Your task to perform on an android device: Go to network settings Image 0: 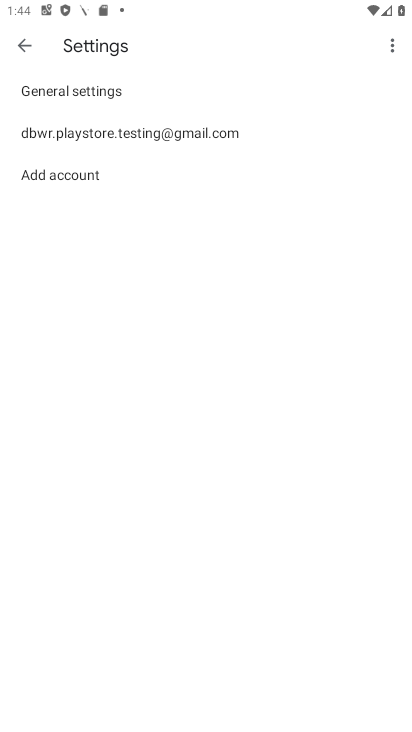
Step 0: press home button
Your task to perform on an android device: Go to network settings Image 1: 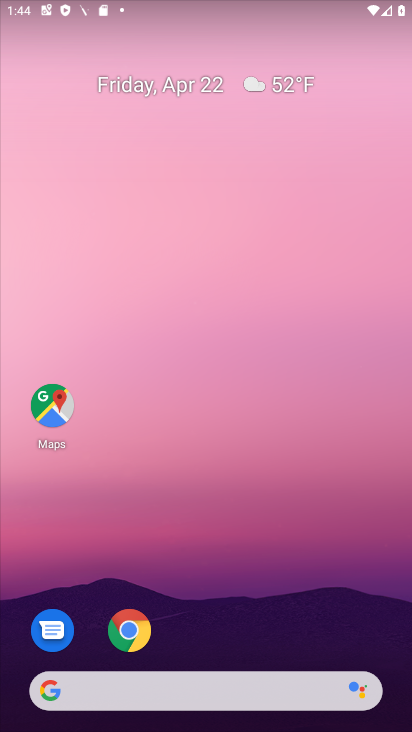
Step 1: click (290, 199)
Your task to perform on an android device: Go to network settings Image 2: 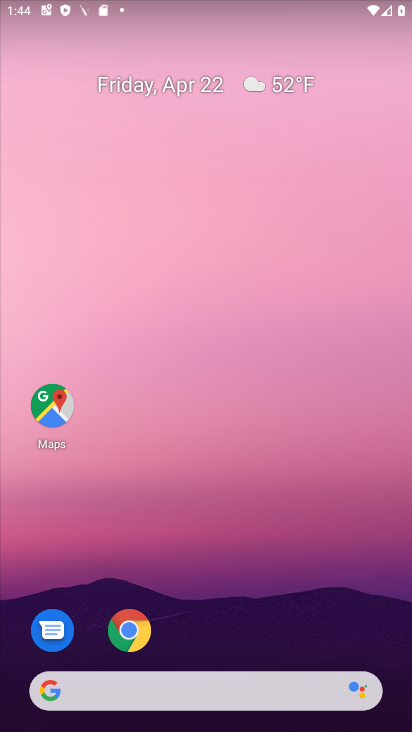
Step 2: drag from (376, 526) to (361, 93)
Your task to perform on an android device: Go to network settings Image 3: 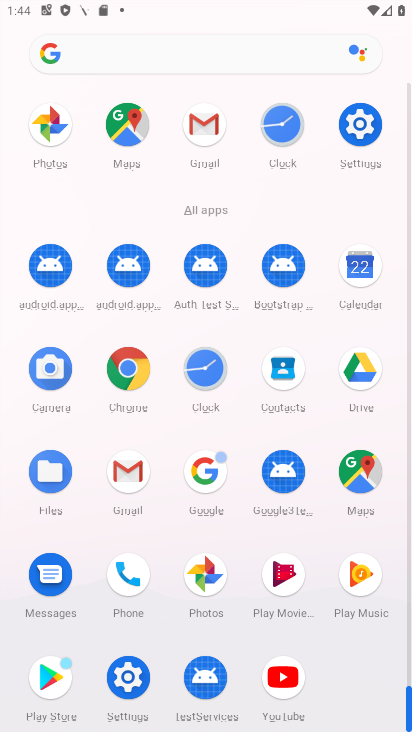
Step 3: click (361, 122)
Your task to perform on an android device: Go to network settings Image 4: 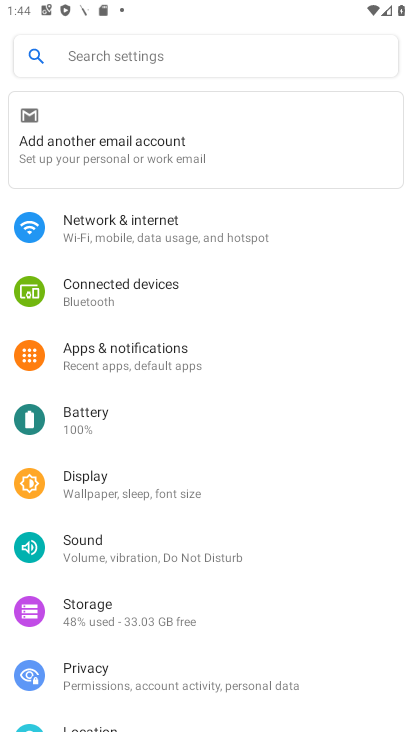
Step 4: click (145, 220)
Your task to perform on an android device: Go to network settings Image 5: 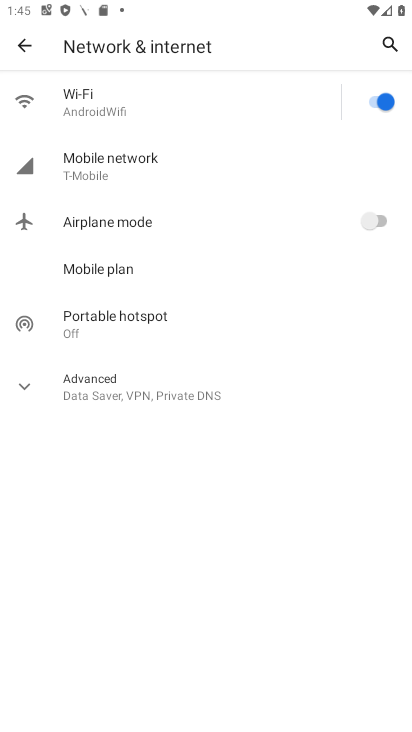
Step 5: click (101, 156)
Your task to perform on an android device: Go to network settings Image 6: 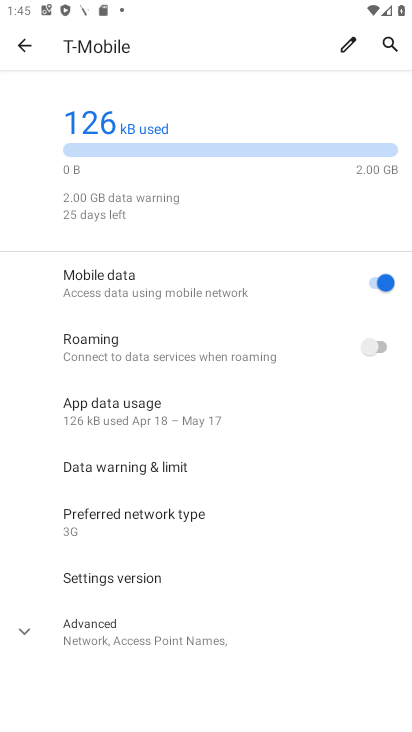
Step 6: task complete